Your task to perform on an android device: Open calendar and show me the first week of next month Image 0: 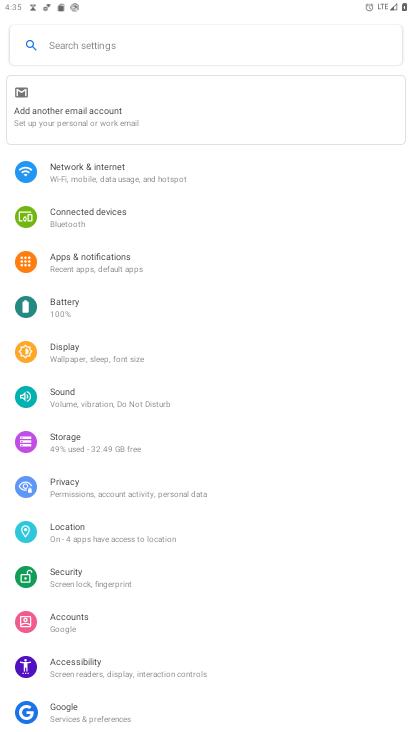
Step 0: press home button
Your task to perform on an android device: Open calendar and show me the first week of next month Image 1: 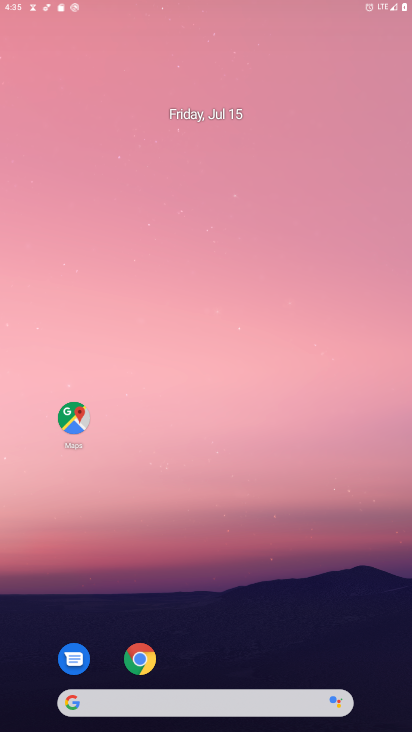
Step 1: drag from (273, 674) to (300, 4)
Your task to perform on an android device: Open calendar and show me the first week of next month Image 2: 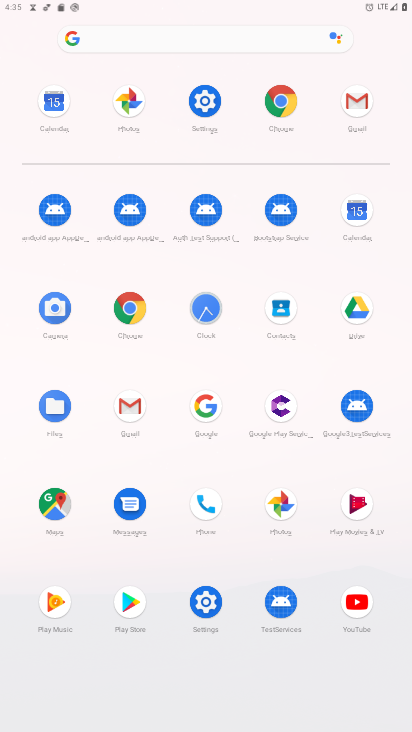
Step 2: click (367, 210)
Your task to perform on an android device: Open calendar and show me the first week of next month Image 3: 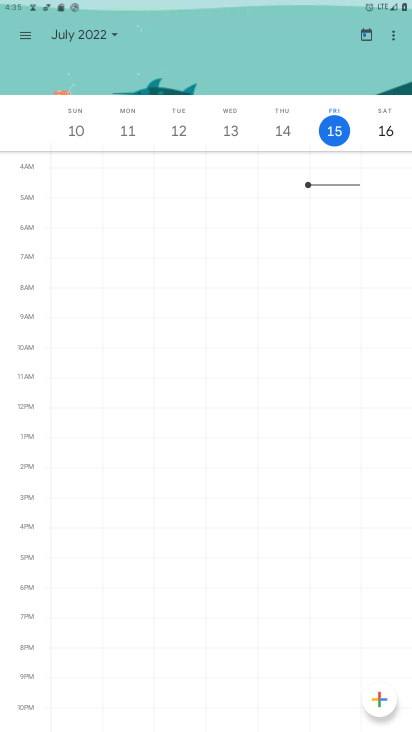
Step 3: click (117, 34)
Your task to perform on an android device: Open calendar and show me the first week of next month Image 4: 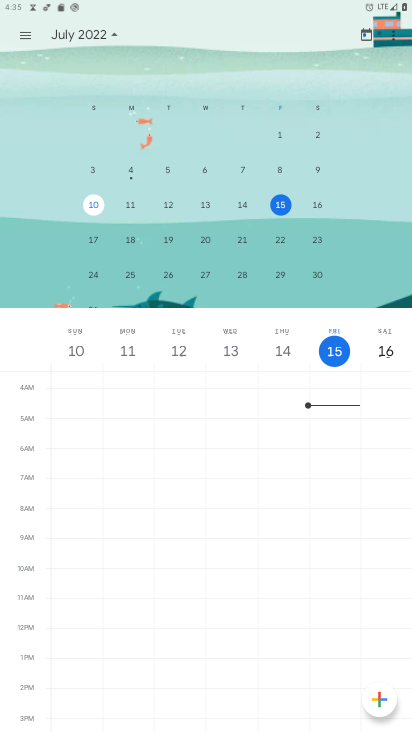
Step 4: drag from (335, 202) to (33, 208)
Your task to perform on an android device: Open calendar and show me the first week of next month Image 5: 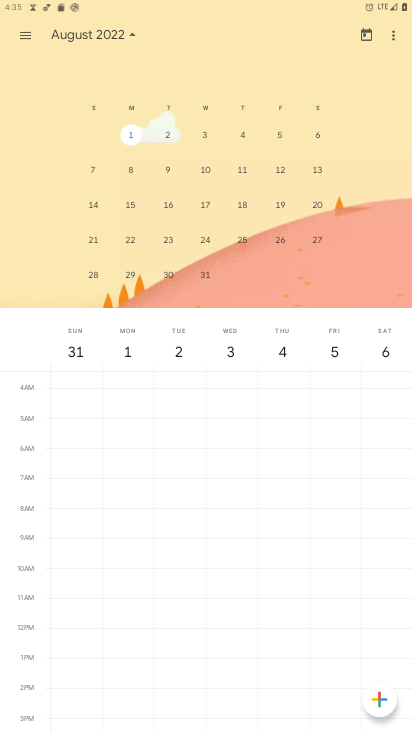
Step 5: click (240, 133)
Your task to perform on an android device: Open calendar and show me the first week of next month Image 6: 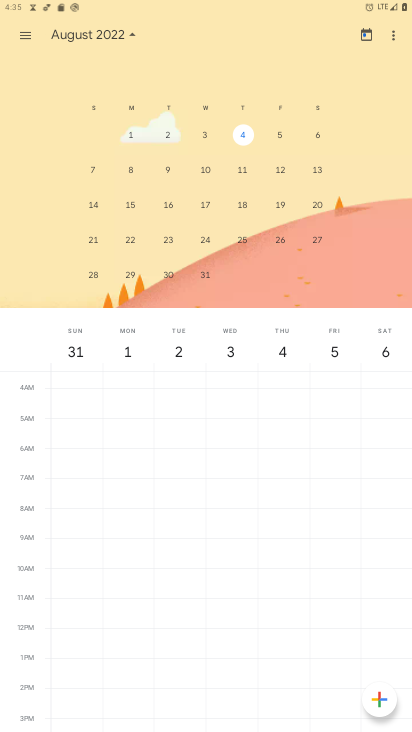
Step 6: task complete